Your task to perform on an android device: Go to sound settings Image 0: 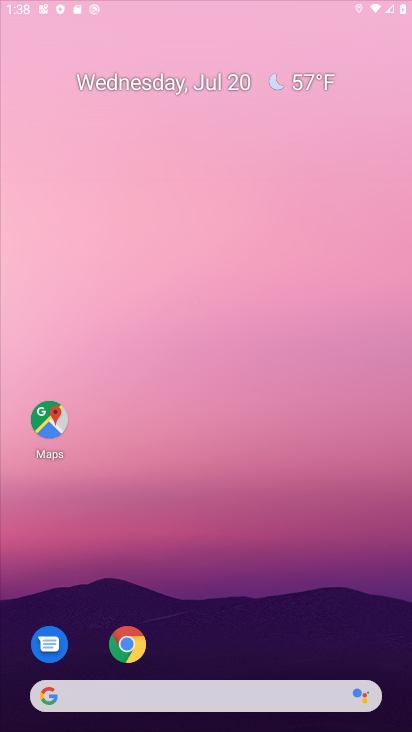
Step 0: press home button
Your task to perform on an android device: Go to sound settings Image 1: 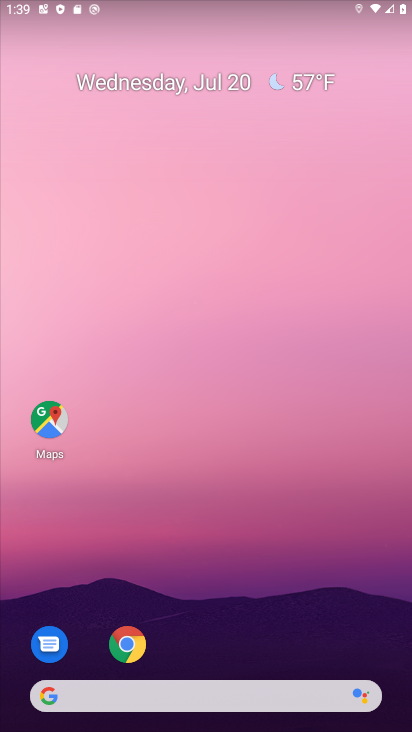
Step 1: drag from (219, 571) to (227, 82)
Your task to perform on an android device: Go to sound settings Image 2: 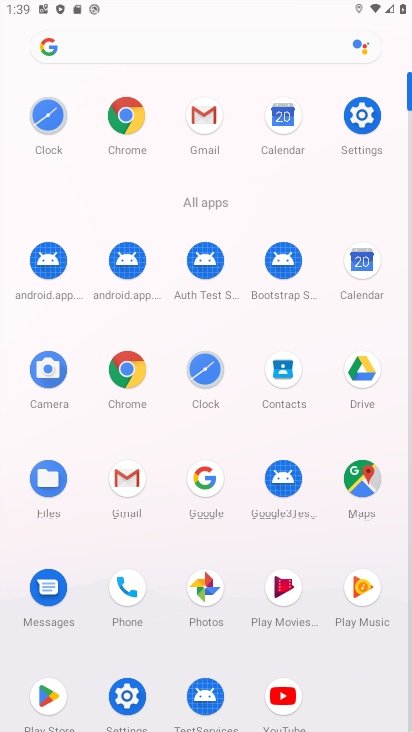
Step 2: click (360, 131)
Your task to perform on an android device: Go to sound settings Image 3: 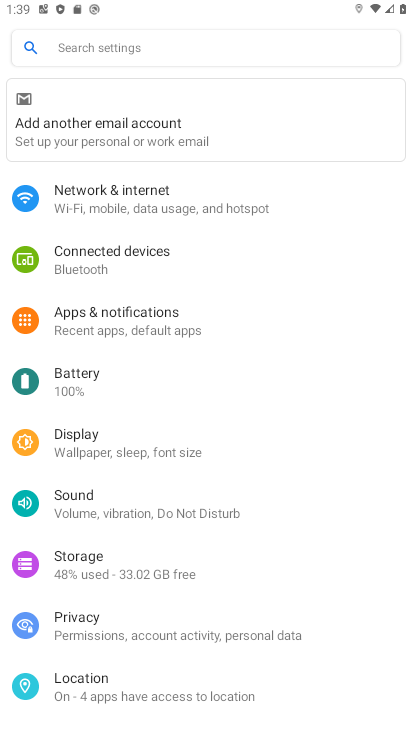
Step 3: click (92, 509)
Your task to perform on an android device: Go to sound settings Image 4: 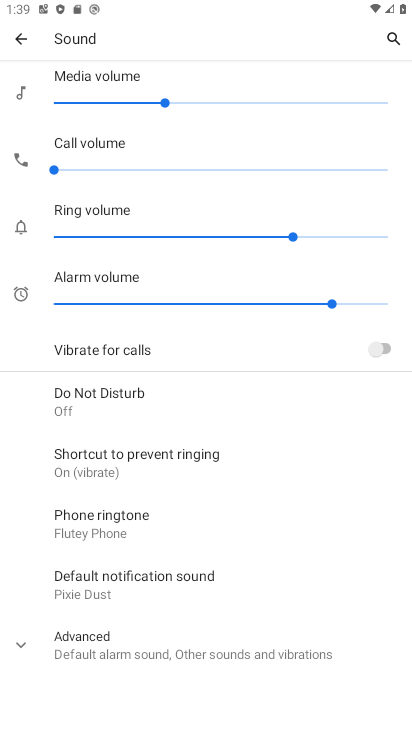
Step 4: task complete